Your task to perform on an android device: clear all cookies in the chrome app Image 0: 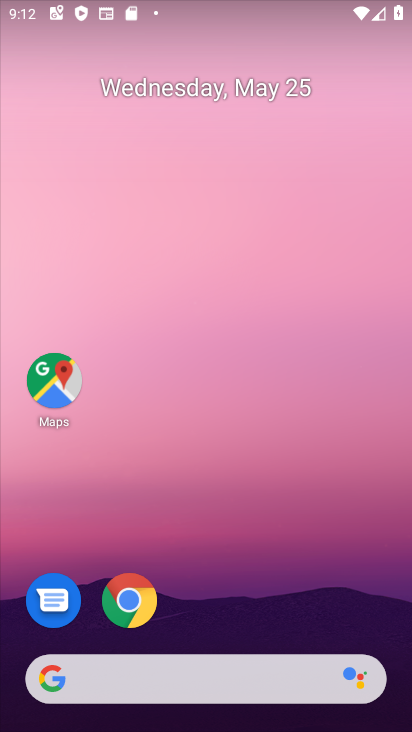
Step 0: drag from (254, 630) to (208, 16)
Your task to perform on an android device: clear all cookies in the chrome app Image 1: 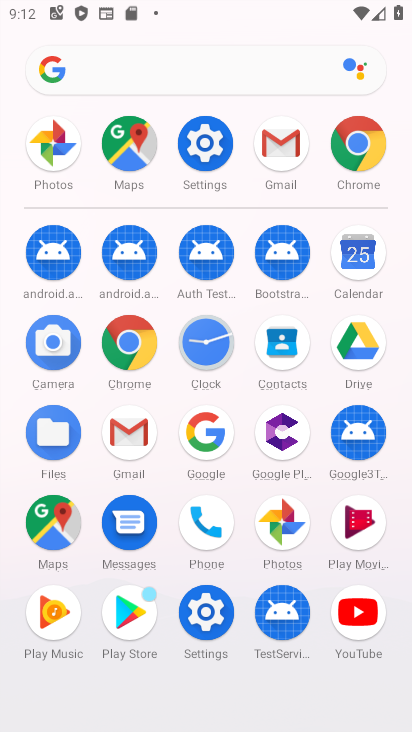
Step 1: drag from (9, 571) to (15, 193)
Your task to perform on an android device: clear all cookies in the chrome app Image 2: 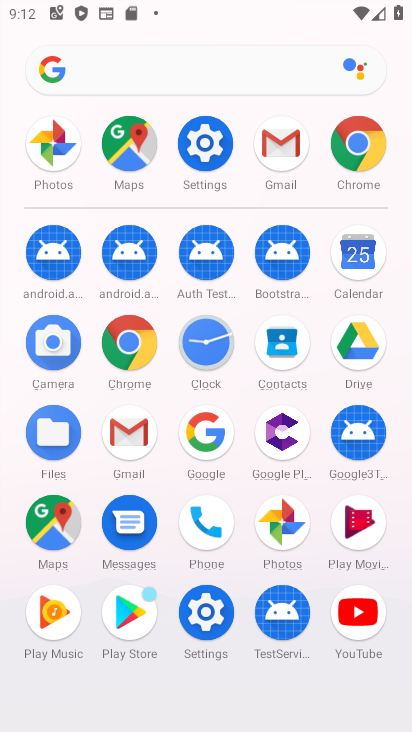
Step 2: click (126, 336)
Your task to perform on an android device: clear all cookies in the chrome app Image 3: 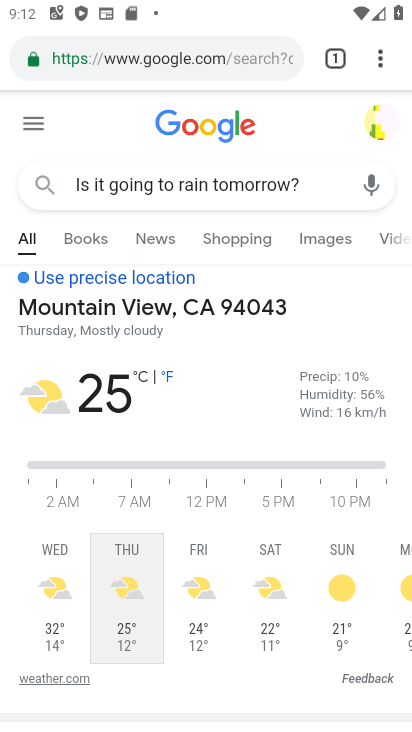
Step 3: drag from (380, 59) to (164, 621)
Your task to perform on an android device: clear all cookies in the chrome app Image 4: 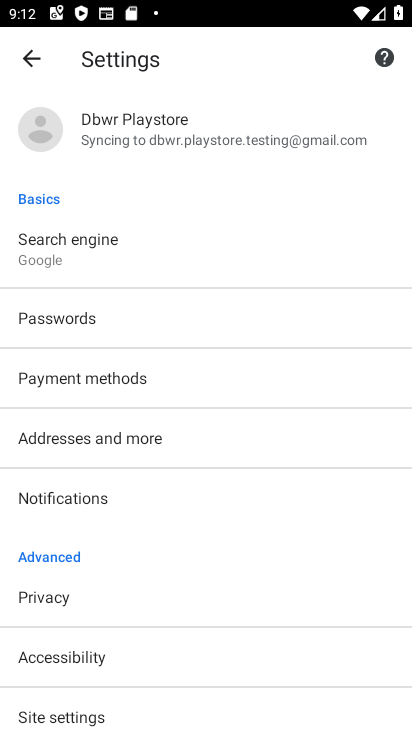
Step 4: drag from (184, 613) to (194, 238)
Your task to perform on an android device: clear all cookies in the chrome app Image 5: 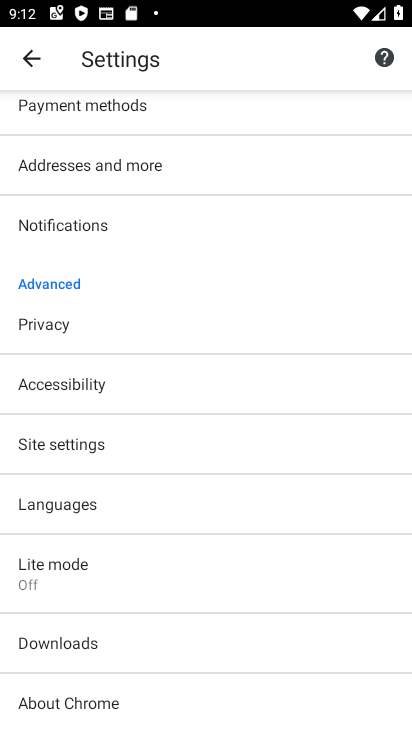
Step 5: click (115, 315)
Your task to perform on an android device: clear all cookies in the chrome app Image 6: 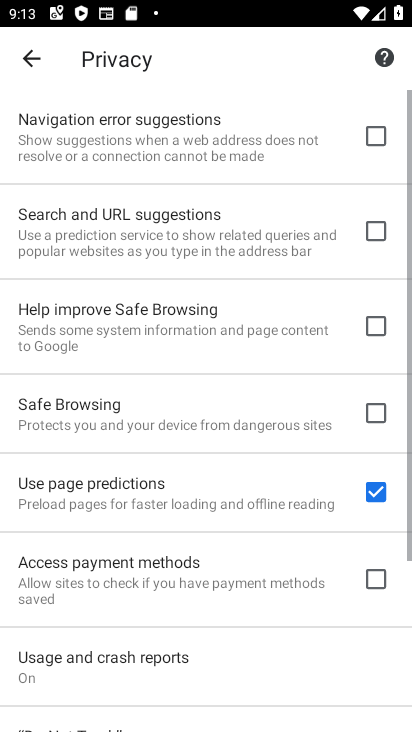
Step 6: drag from (235, 672) to (223, 214)
Your task to perform on an android device: clear all cookies in the chrome app Image 7: 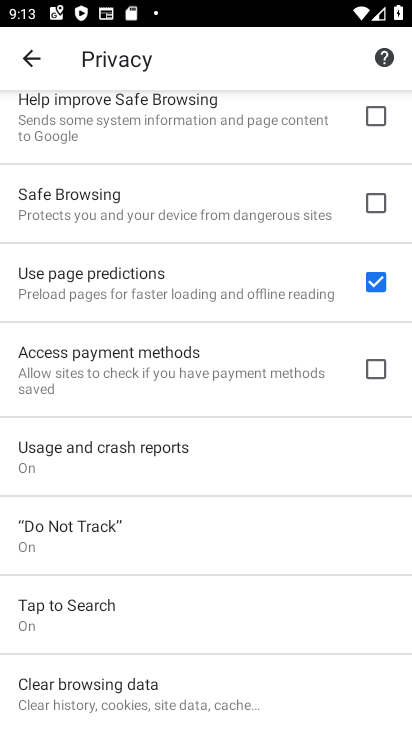
Step 7: click (162, 677)
Your task to perform on an android device: clear all cookies in the chrome app Image 8: 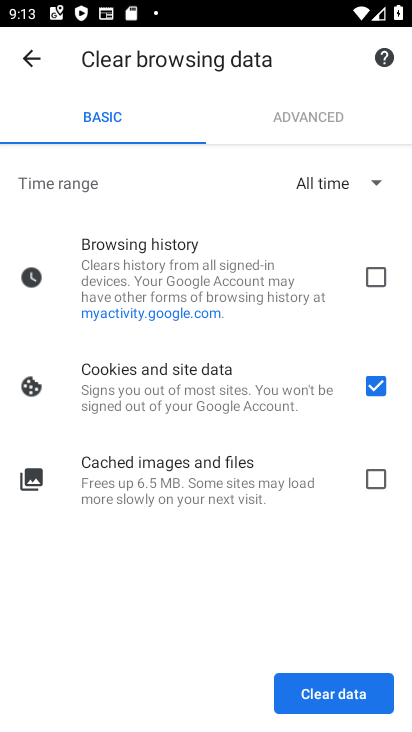
Step 8: click (322, 691)
Your task to perform on an android device: clear all cookies in the chrome app Image 9: 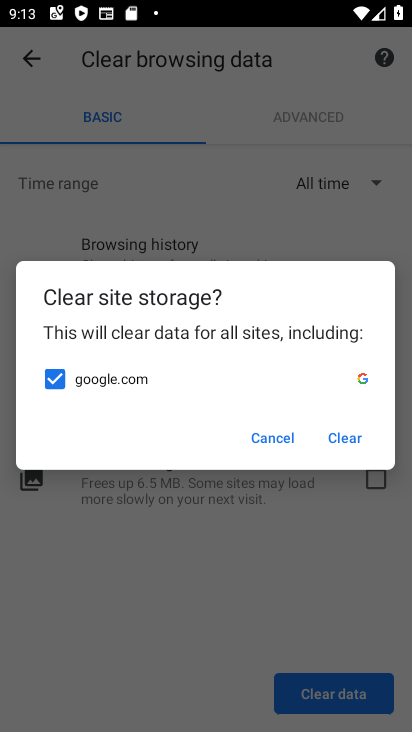
Step 9: click (330, 432)
Your task to perform on an android device: clear all cookies in the chrome app Image 10: 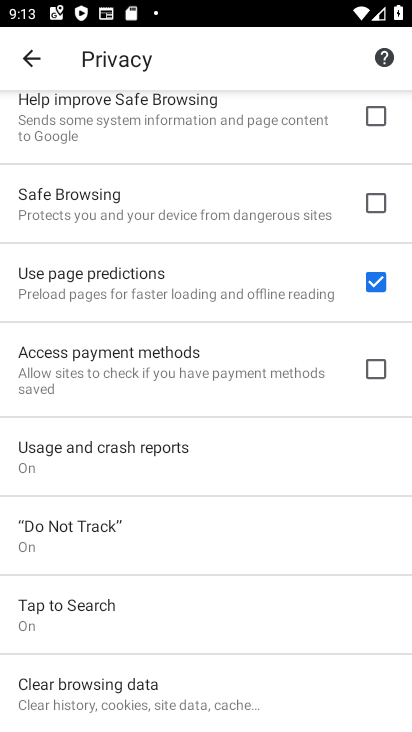
Step 10: task complete